Your task to perform on an android device: Go to sound settings Image 0: 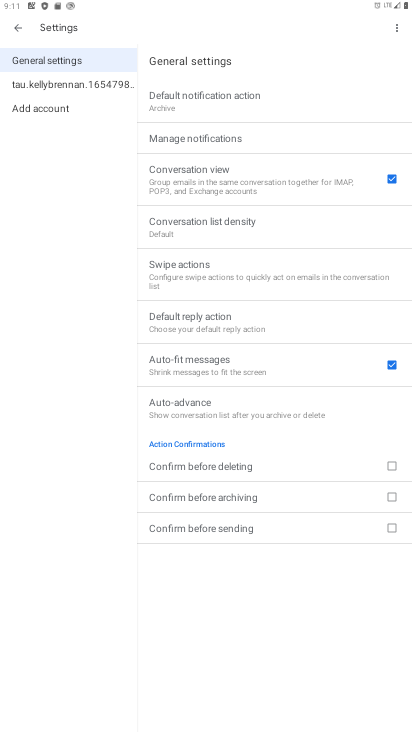
Step 0: press home button
Your task to perform on an android device: Go to sound settings Image 1: 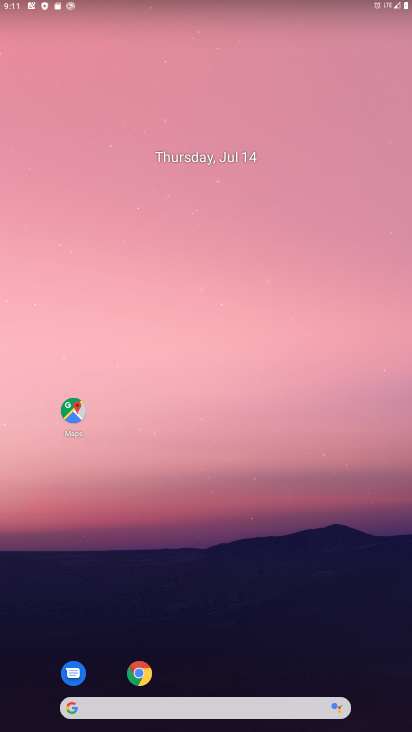
Step 1: drag from (183, 708) to (237, 237)
Your task to perform on an android device: Go to sound settings Image 2: 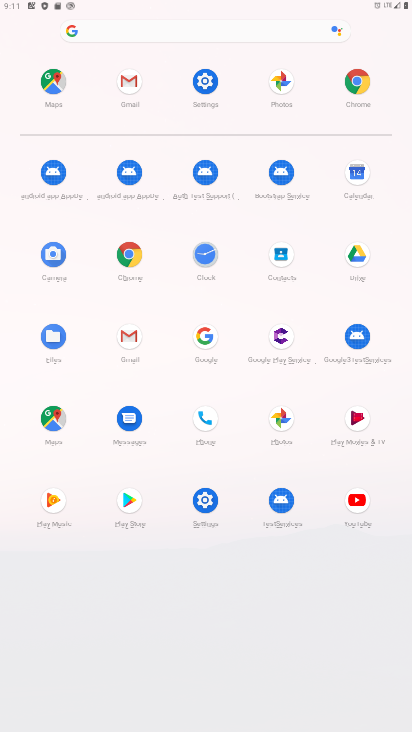
Step 2: click (206, 499)
Your task to perform on an android device: Go to sound settings Image 3: 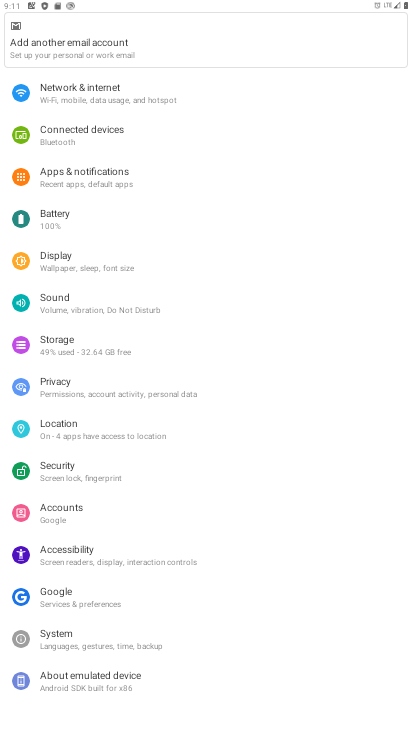
Step 3: click (104, 309)
Your task to perform on an android device: Go to sound settings Image 4: 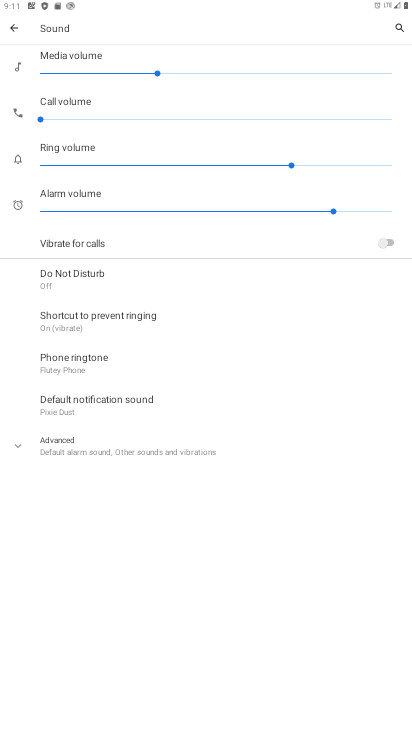
Step 4: task complete